Your task to perform on an android device: Open the downloads Image 0: 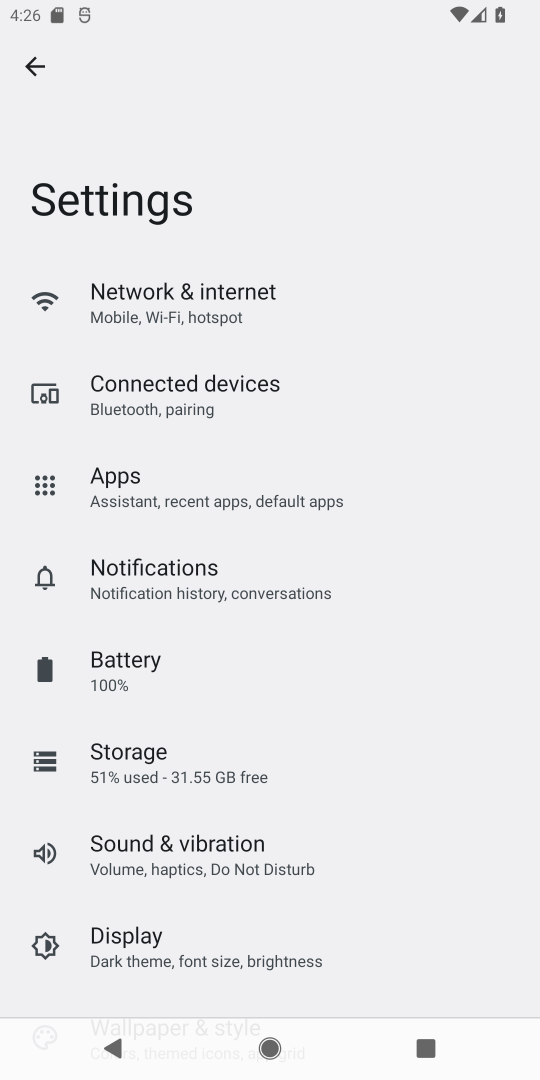
Step 0: press home button
Your task to perform on an android device: Open the downloads Image 1: 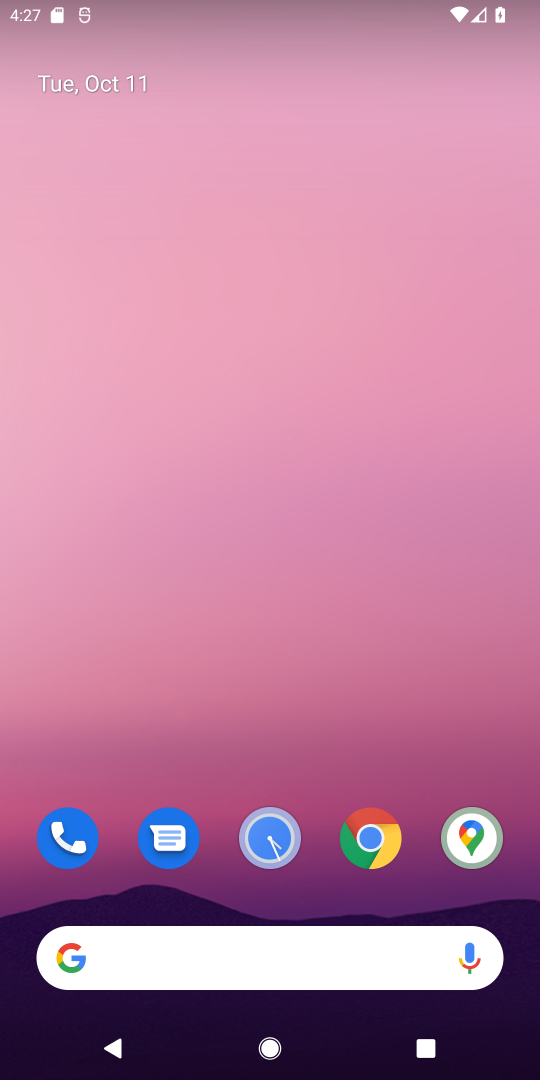
Step 1: click (384, 838)
Your task to perform on an android device: Open the downloads Image 2: 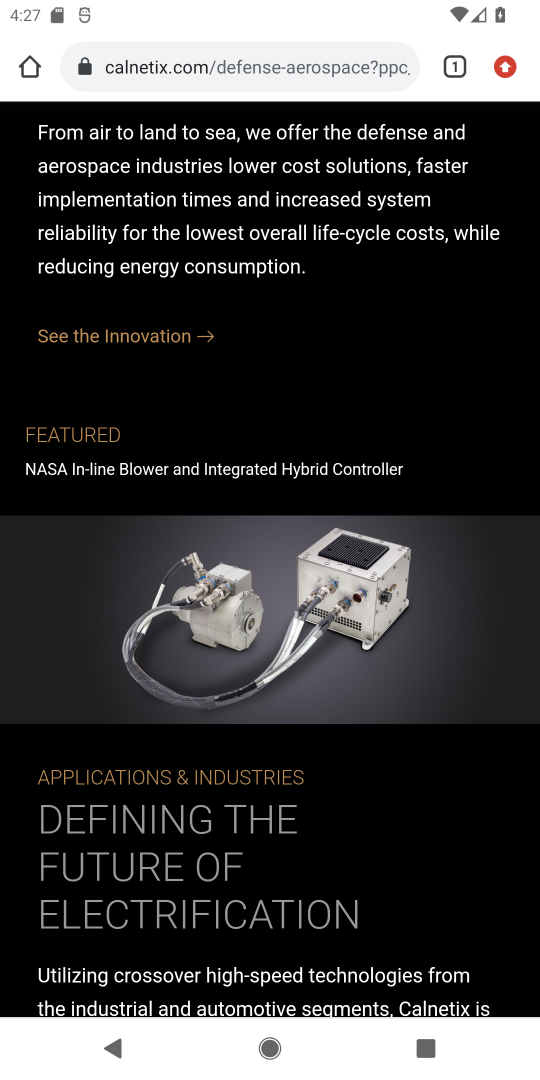
Step 2: click (294, 65)
Your task to perform on an android device: Open the downloads Image 3: 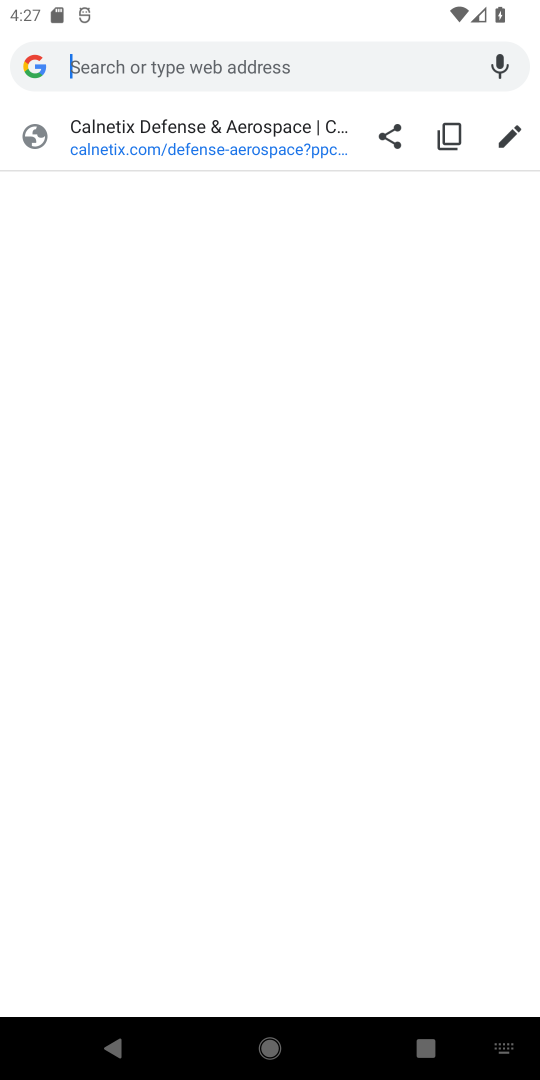
Step 3: type "downloads"
Your task to perform on an android device: Open the downloads Image 4: 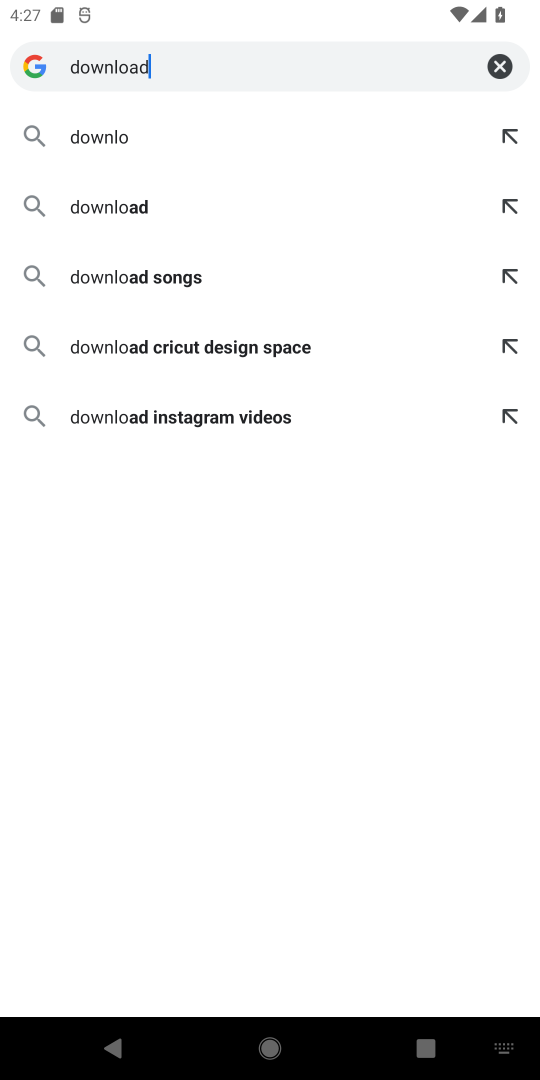
Step 4: type ""
Your task to perform on an android device: Open the downloads Image 5: 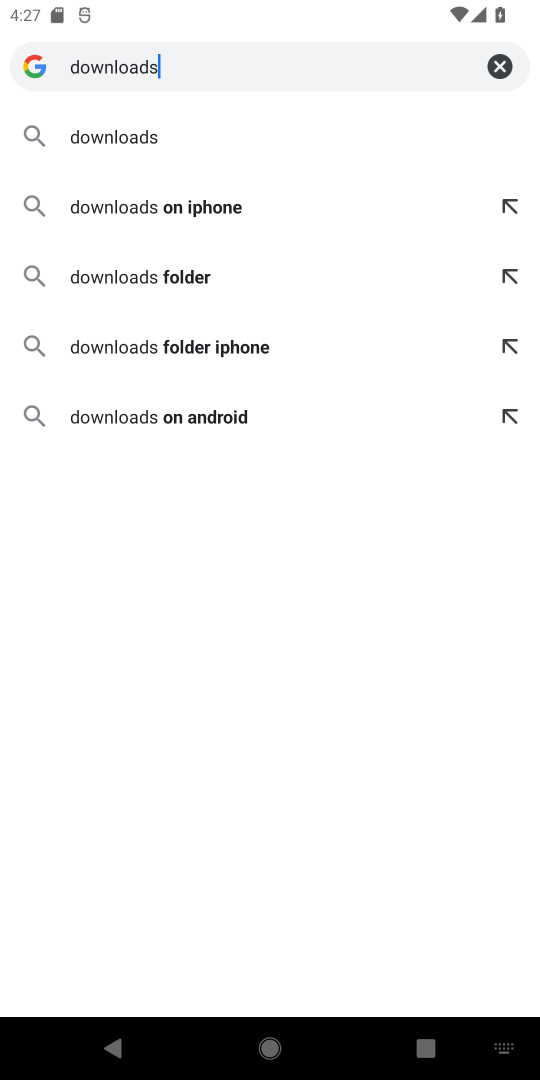
Step 5: click (498, 65)
Your task to perform on an android device: Open the downloads Image 6: 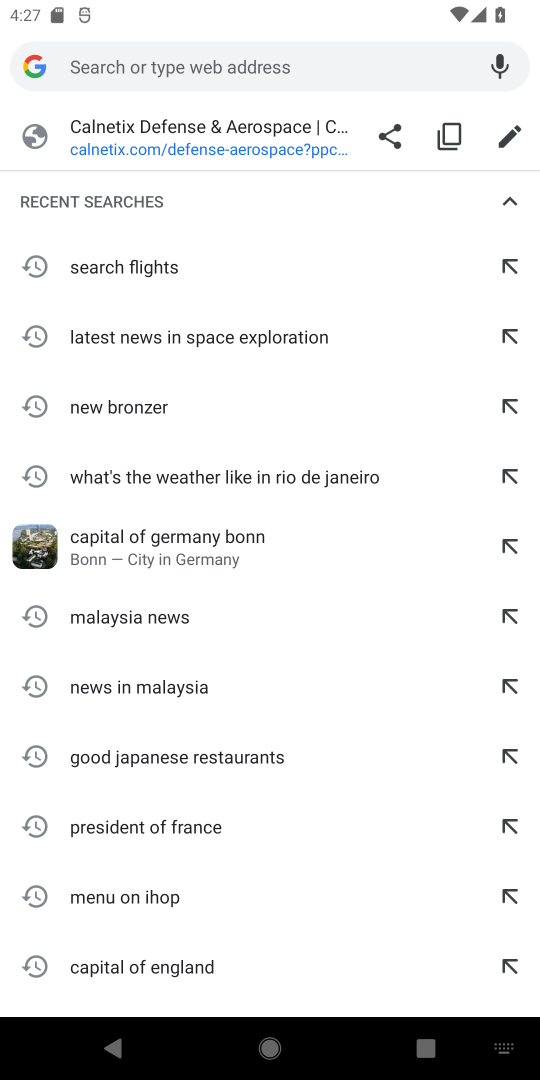
Step 6: press back button
Your task to perform on an android device: Open the downloads Image 7: 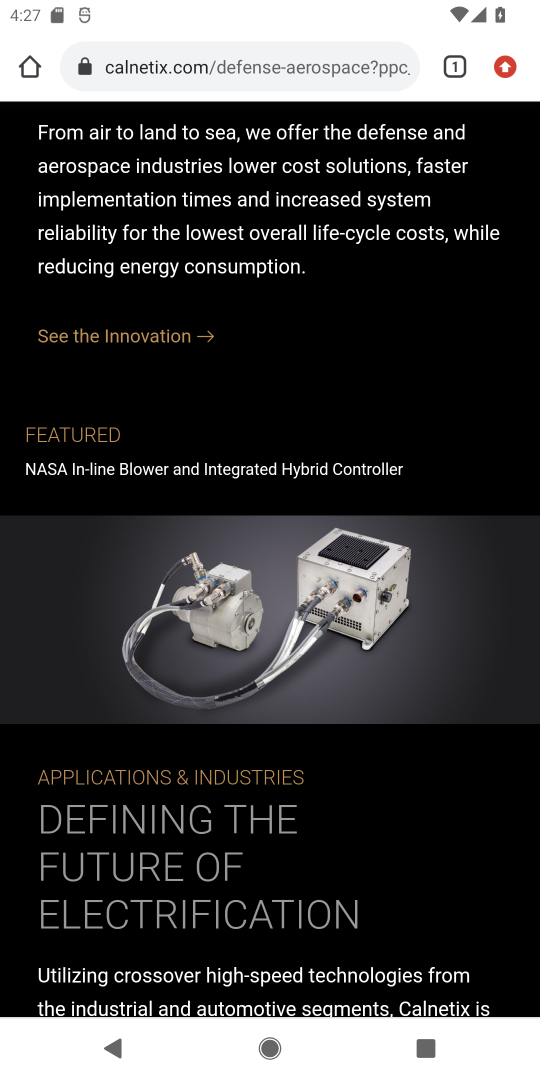
Step 7: click (456, 64)
Your task to perform on an android device: Open the downloads Image 8: 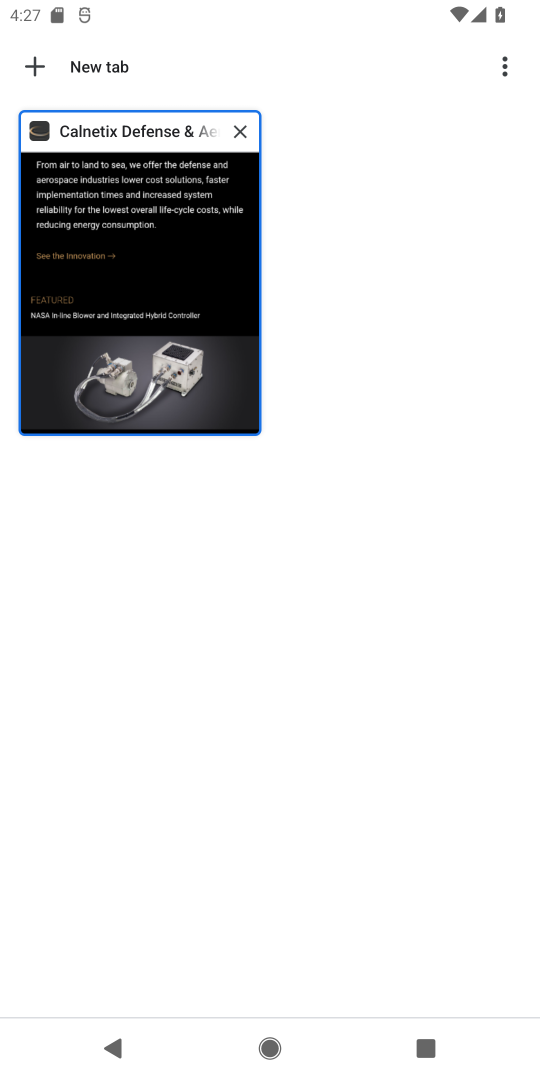
Step 8: click (502, 68)
Your task to perform on an android device: Open the downloads Image 9: 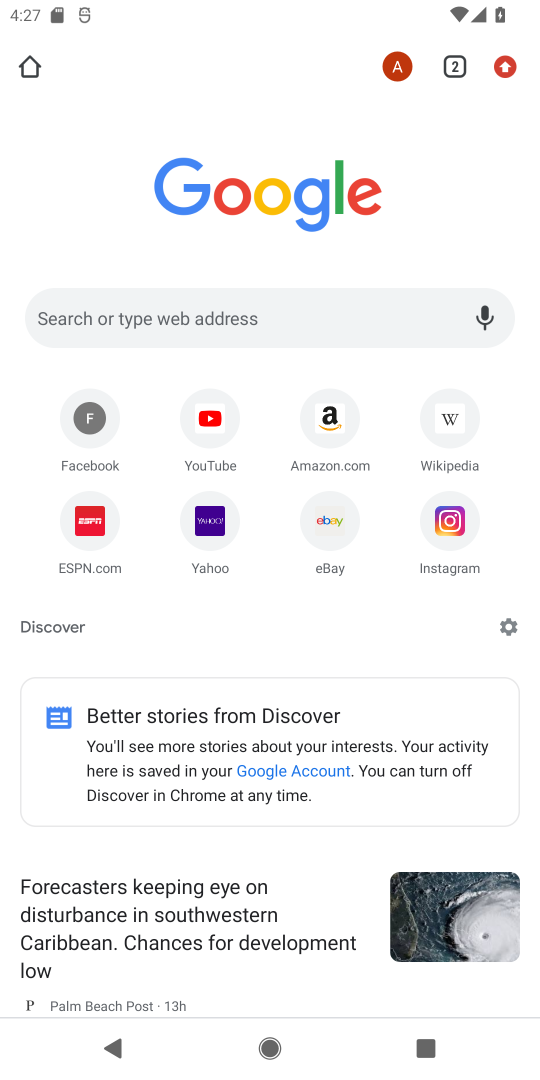
Step 9: click (508, 72)
Your task to perform on an android device: Open the downloads Image 10: 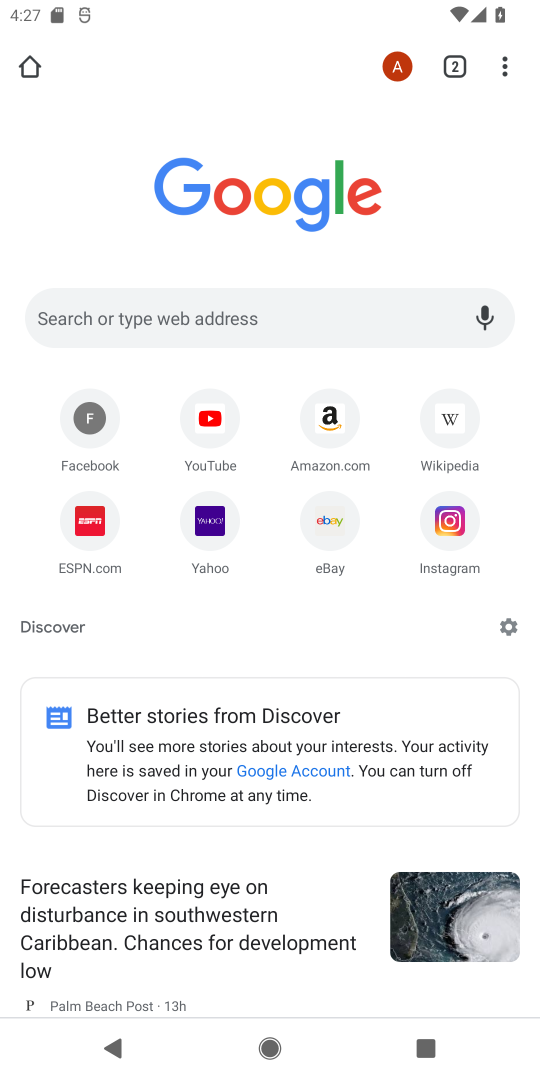
Step 10: click (508, 71)
Your task to perform on an android device: Open the downloads Image 11: 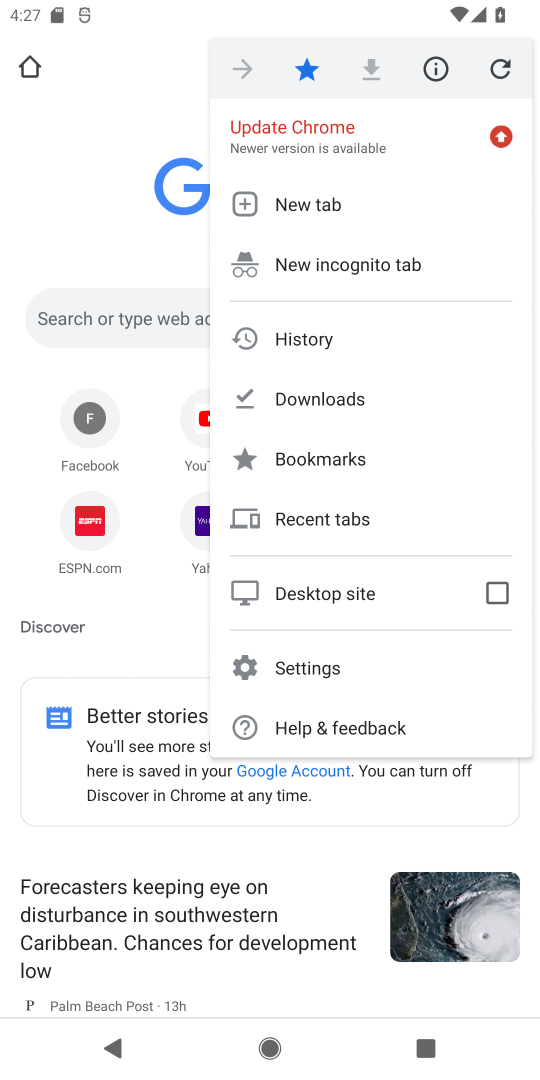
Step 11: click (285, 399)
Your task to perform on an android device: Open the downloads Image 12: 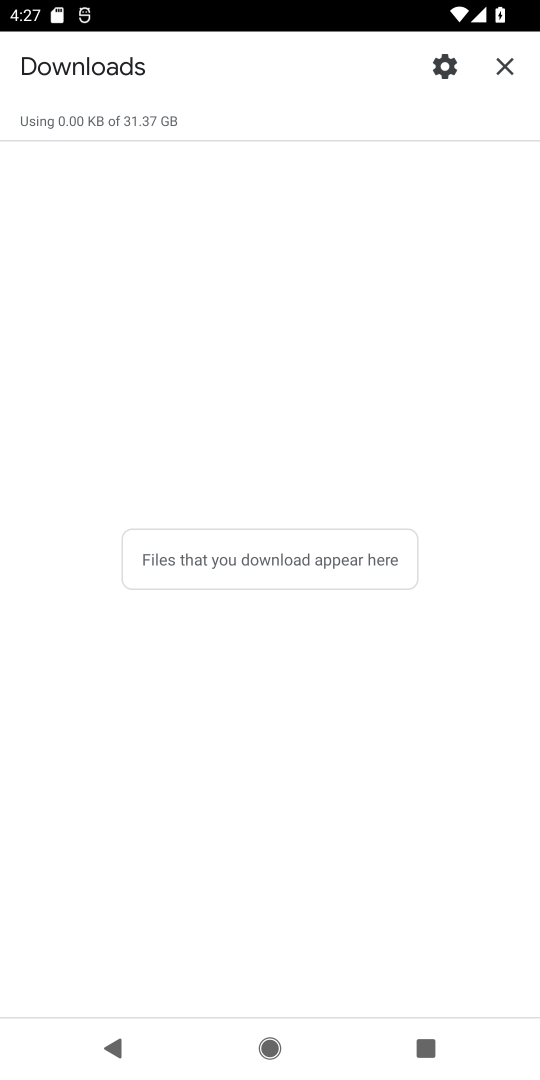
Step 12: task complete